Your task to perform on an android device: open a bookmark in the chrome app Image 0: 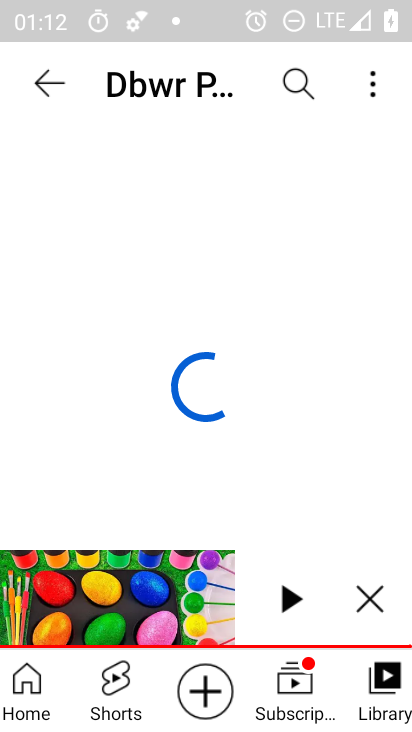
Step 0: press home button
Your task to perform on an android device: open a bookmark in the chrome app Image 1: 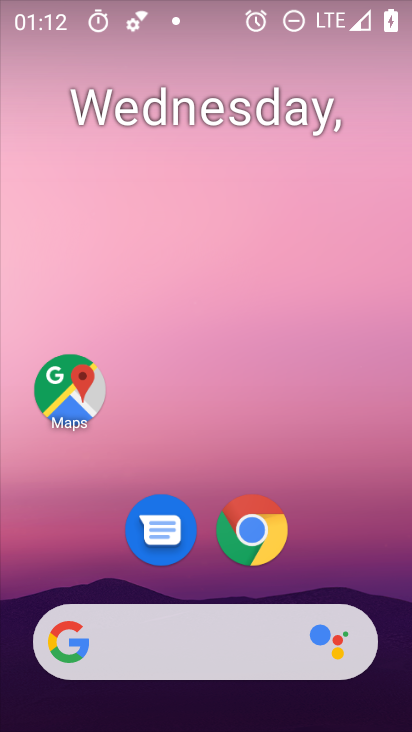
Step 1: drag from (226, 635) to (256, 141)
Your task to perform on an android device: open a bookmark in the chrome app Image 2: 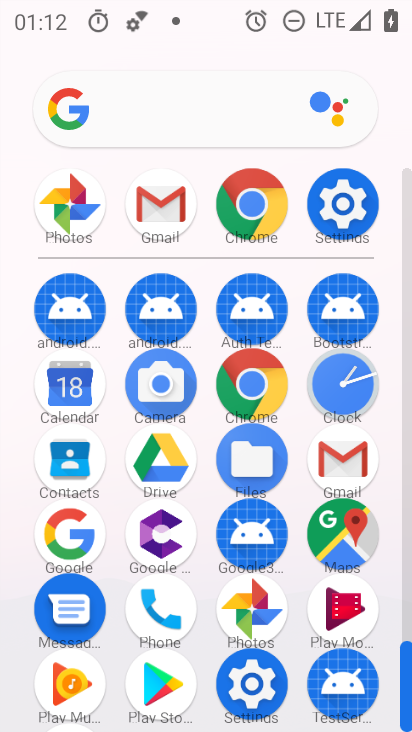
Step 2: click (283, 395)
Your task to perform on an android device: open a bookmark in the chrome app Image 3: 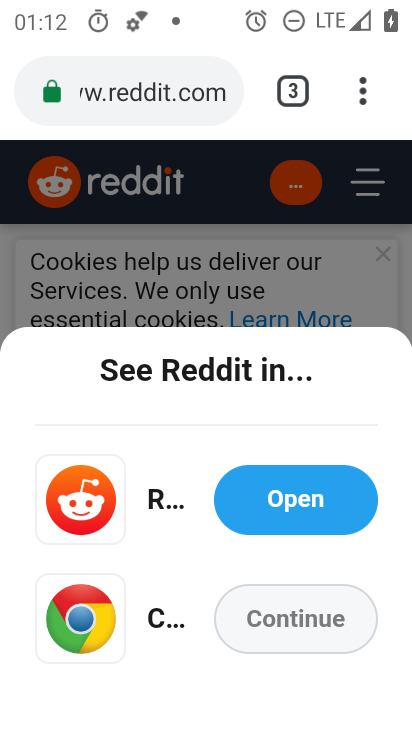
Step 3: click (356, 81)
Your task to perform on an android device: open a bookmark in the chrome app Image 4: 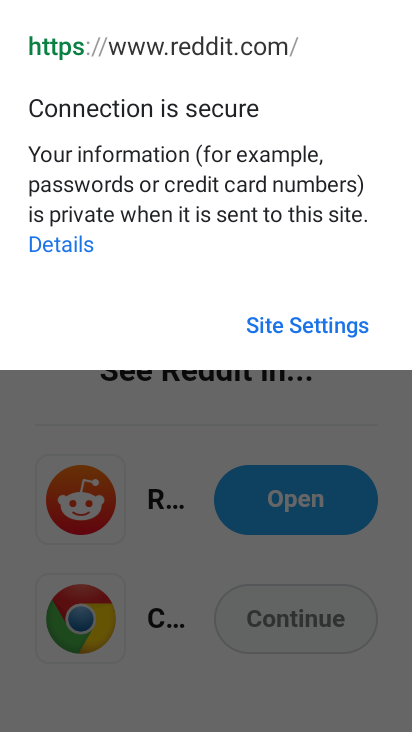
Step 4: click (401, 444)
Your task to perform on an android device: open a bookmark in the chrome app Image 5: 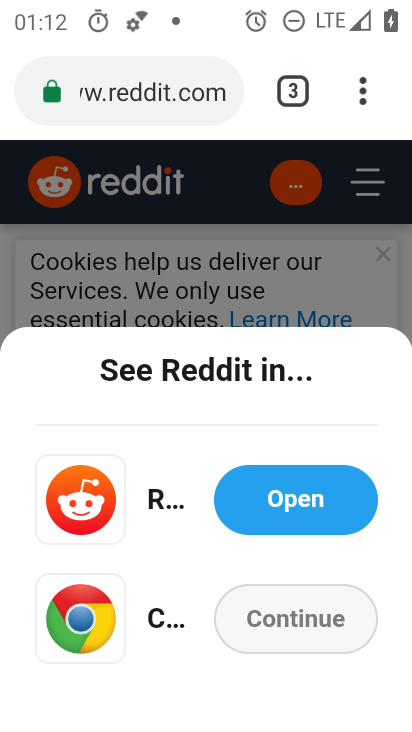
Step 5: task complete